Your task to perform on an android device: check storage Image 0: 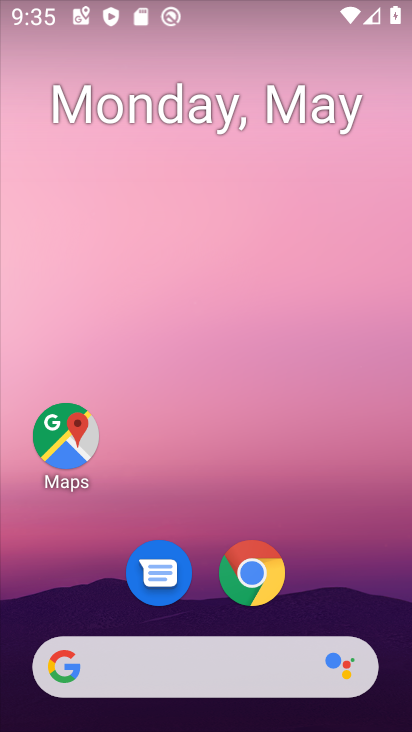
Step 0: drag from (363, 588) to (246, 262)
Your task to perform on an android device: check storage Image 1: 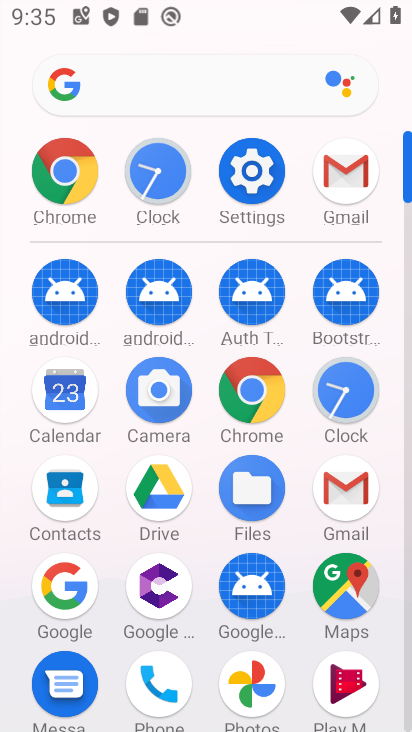
Step 1: click (246, 203)
Your task to perform on an android device: check storage Image 2: 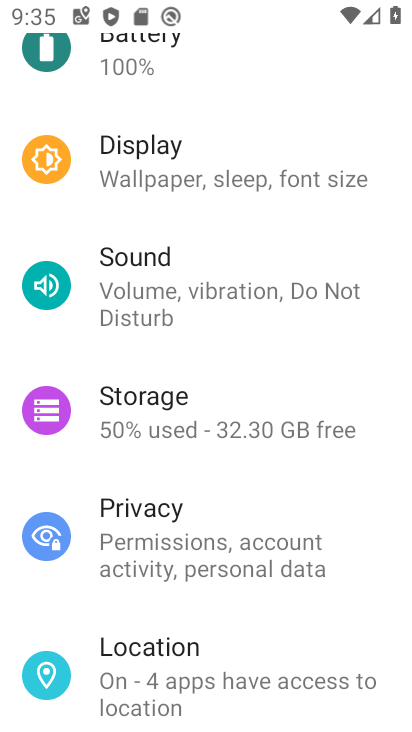
Step 2: click (191, 410)
Your task to perform on an android device: check storage Image 3: 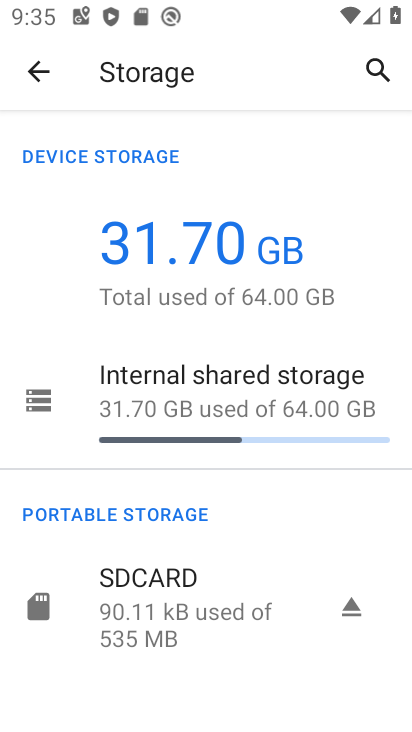
Step 3: task complete